Your task to perform on an android device: What's the weather going to be this weekend? Image 0: 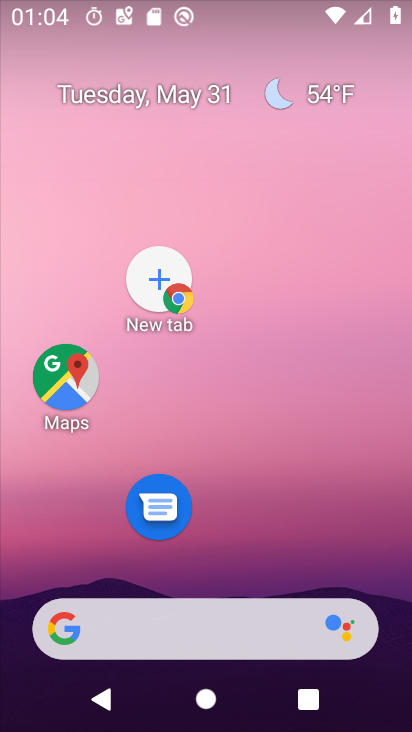
Step 0: drag from (1, 212) to (332, 243)
Your task to perform on an android device: What's the weather going to be this weekend? Image 1: 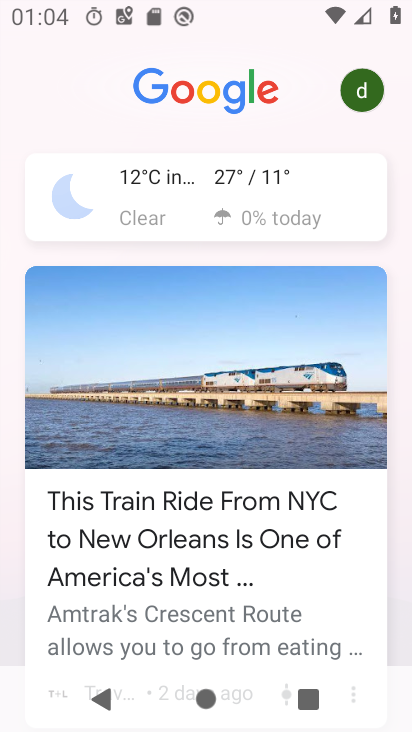
Step 1: click (196, 196)
Your task to perform on an android device: What's the weather going to be this weekend? Image 2: 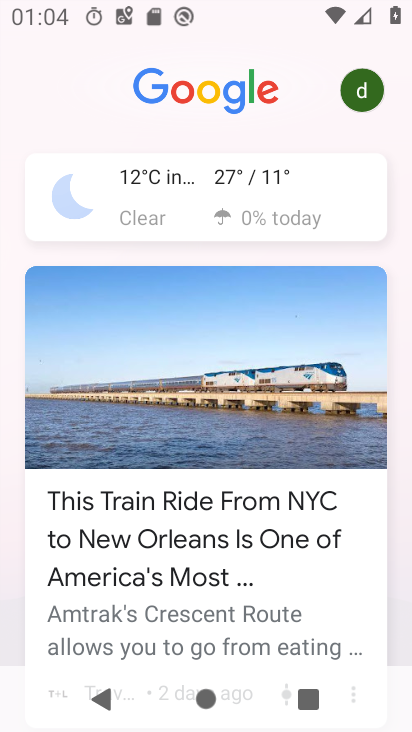
Step 2: click (195, 197)
Your task to perform on an android device: What's the weather going to be this weekend? Image 3: 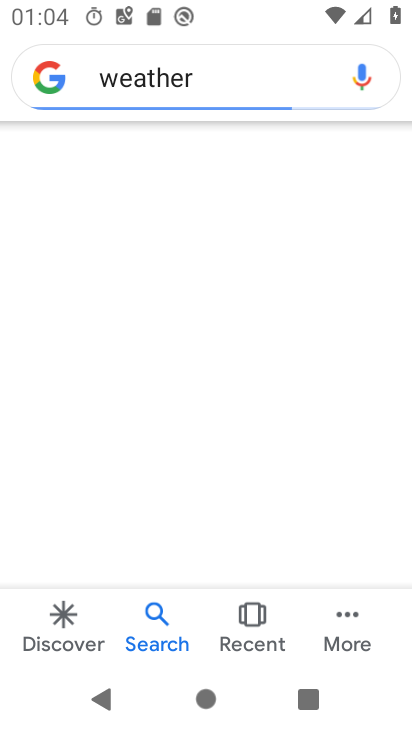
Step 3: click (198, 199)
Your task to perform on an android device: What's the weather going to be this weekend? Image 4: 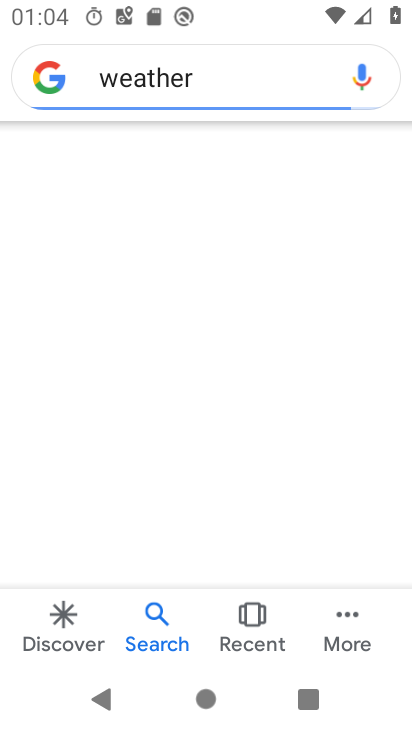
Step 4: click (199, 199)
Your task to perform on an android device: What's the weather going to be this weekend? Image 5: 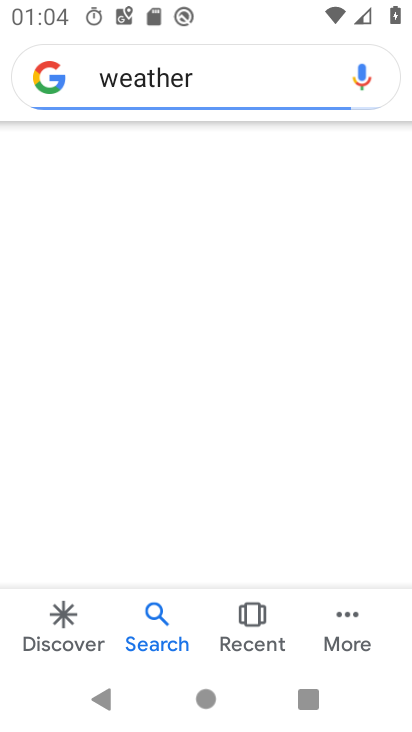
Step 5: task complete